Your task to perform on an android device: turn pop-ups off in chrome Image 0: 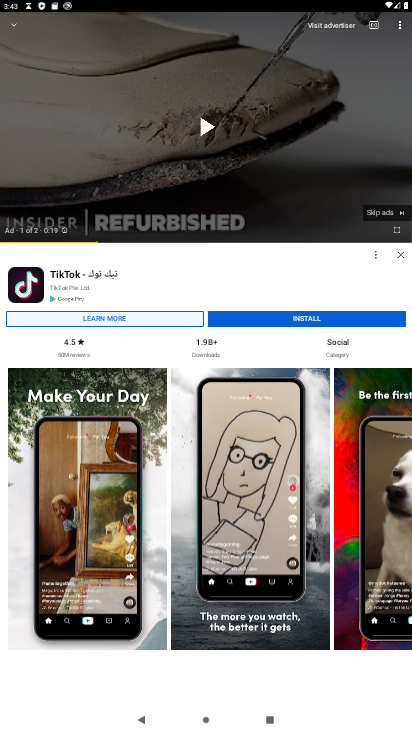
Step 0: press home button
Your task to perform on an android device: turn pop-ups off in chrome Image 1: 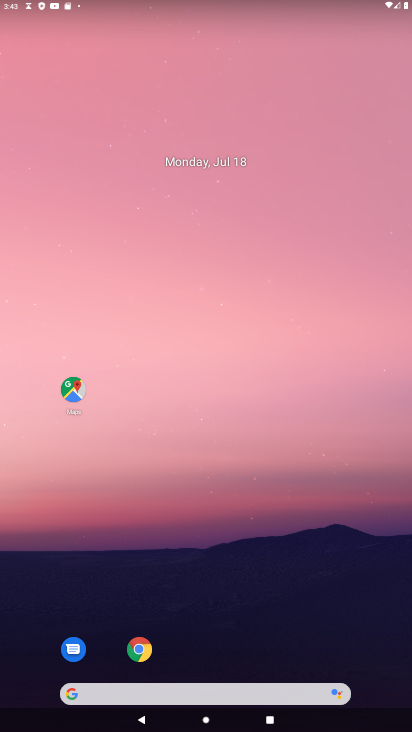
Step 1: press home button
Your task to perform on an android device: turn pop-ups off in chrome Image 2: 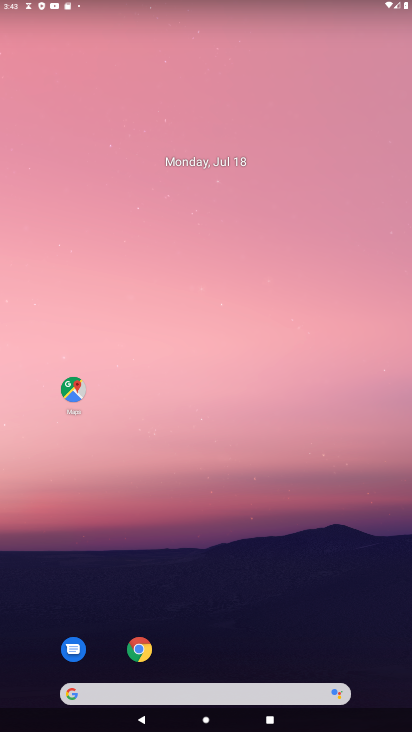
Step 2: click (124, 662)
Your task to perform on an android device: turn pop-ups off in chrome Image 3: 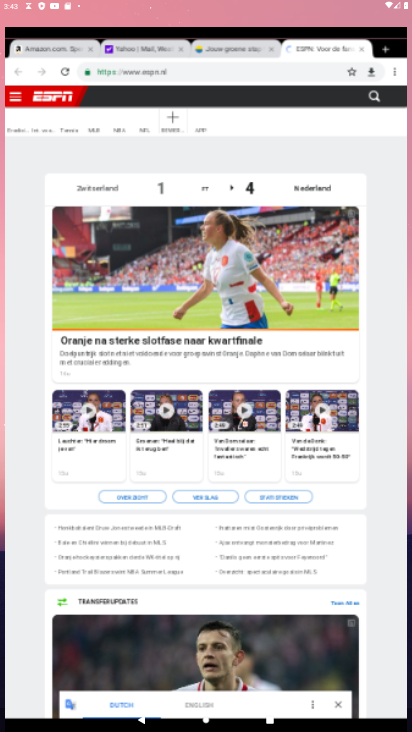
Step 3: click (136, 656)
Your task to perform on an android device: turn pop-ups off in chrome Image 4: 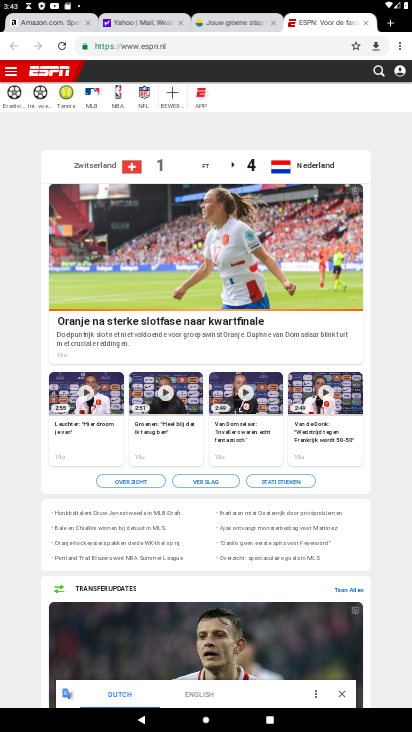
Step 4: drag from (403, 44) to (302, 331)
Your task to perform on an android device: turn pop-ups off in chrome Image 5: 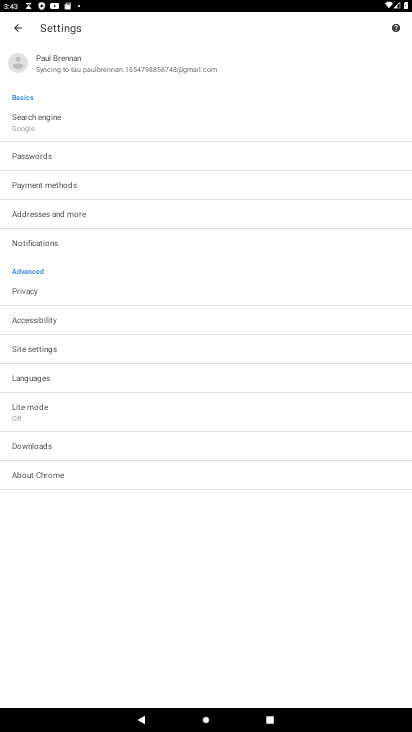
Step 5: click (29, 347)
Your task to perform on an android device: turn pop-ups off in chrome Image 6: 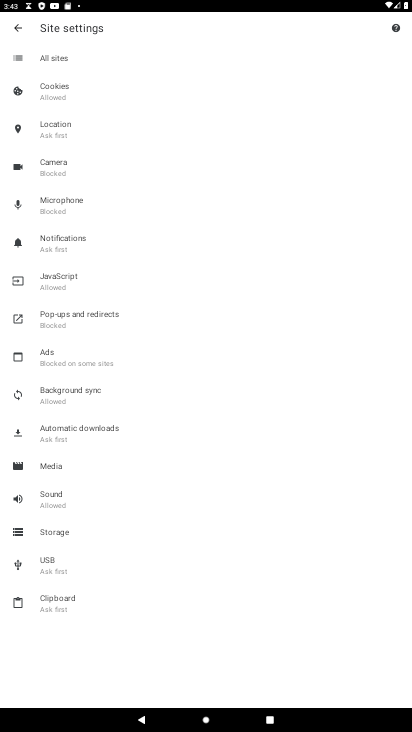
Step 6: click (61, 316)
Your task to perform on an android device: turn pop-ups off in chrome Image 7: 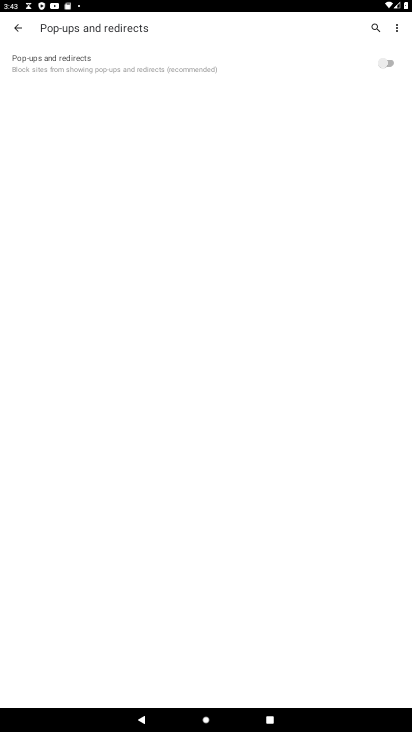
Step 7: task complete